Your task to perform on an android device: turn pop-ups on in chrome Image 0: 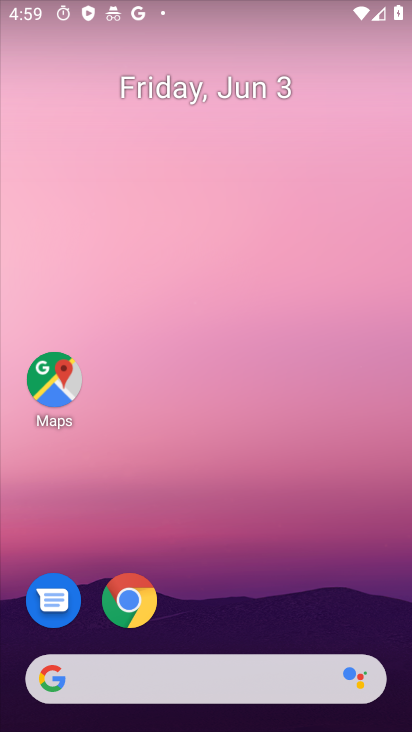
Step 0: click (138, 589)
Your task to perform on an android device: turn pop-ups on in chrome Image 1: 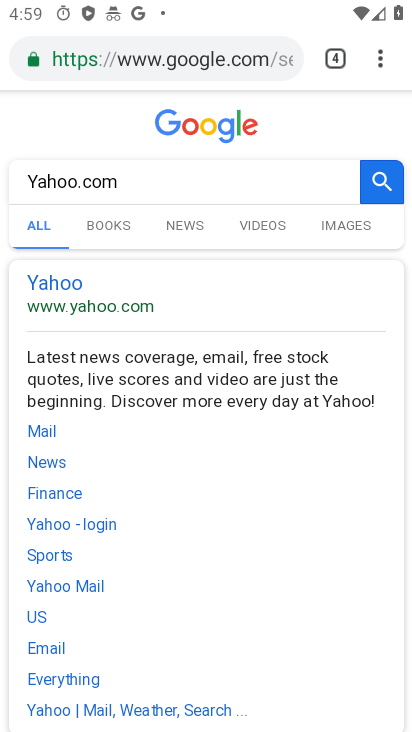
Step 1: click (384, 65)
Your task to perform on an android device: turn pop-ups on in chrome Image 2: 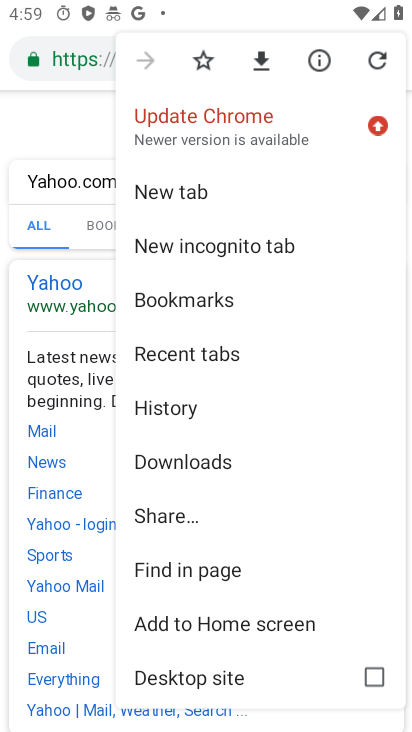
Step 2: drag from (267, 666) to (227, 390)
Your task to perform on an android device: turn pop-ups on in chrome Image 3: 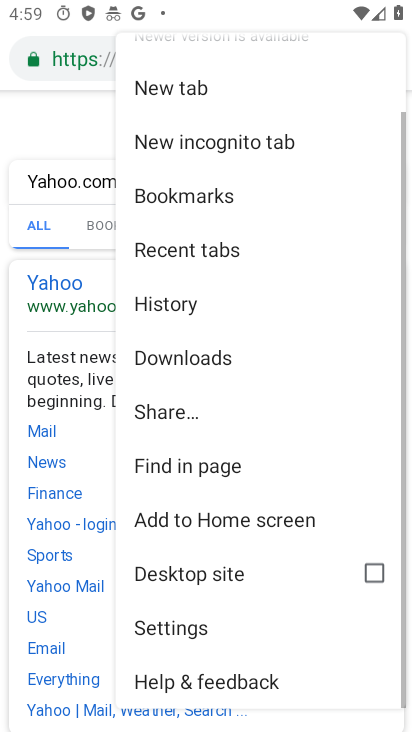
Step 3: click (174, 625)
Your task to perform on an android device: turn pop-ups on in chrome Image 4: 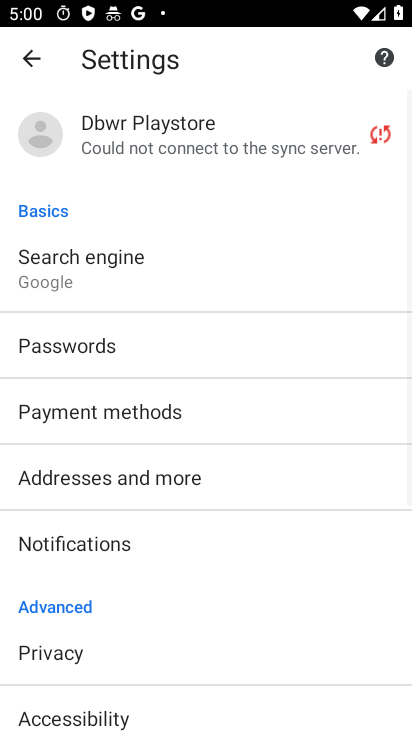
Step 4: drag from (256, 664) to (255, 427)
Your task to perform on an android device: turn pop-ups on in chrome Image 5: 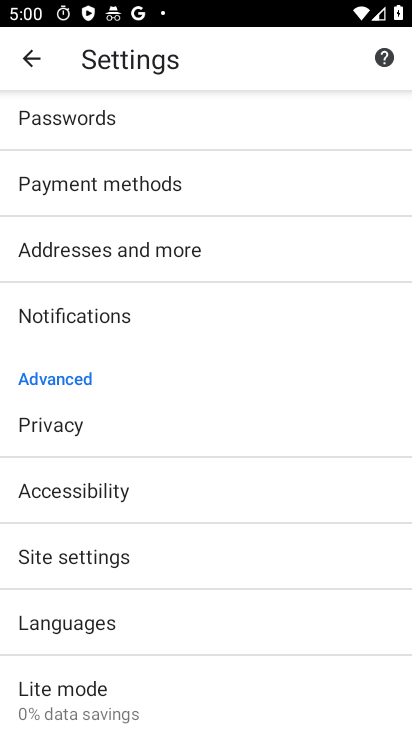
Step 5: click (89, 548)
Your task to perform on an android device: turn pop-ups on in chrome Image 6: 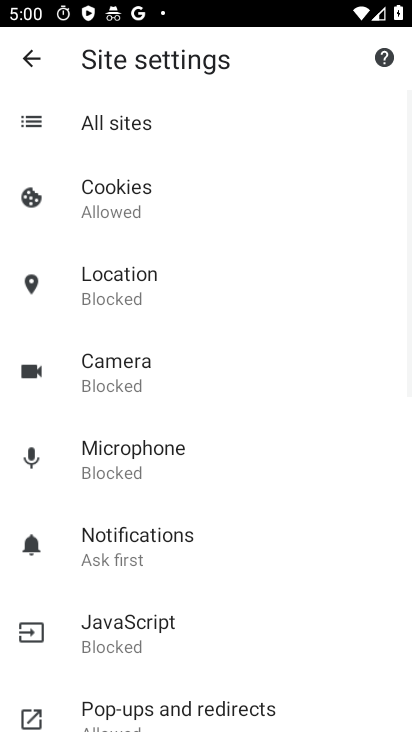
Step 6: drag from (292, 582) to (286, 306)
Your task to perform on an android device: turn pop-ups on in chrome Image 7: 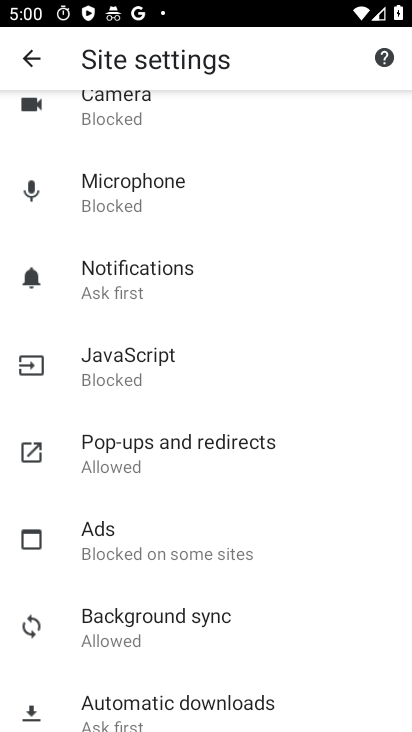
Step 7: click (163, 448)
Your task to perform on an android device: turn pop-ups on in chrome Image 8: 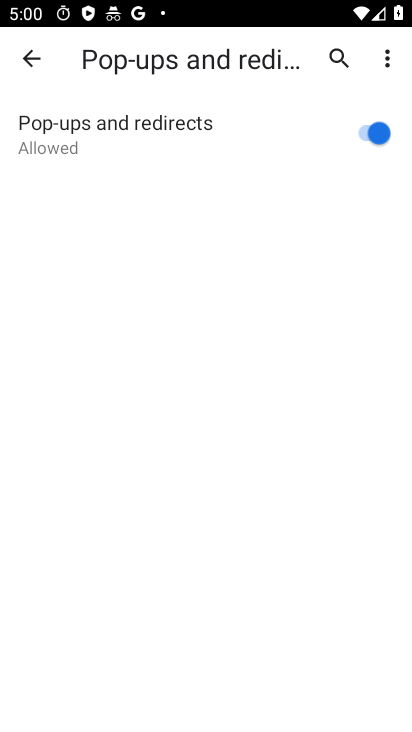
Step 8: task complete